Your task to perform on an android device: Do I have any events tomorrow? Image 0: 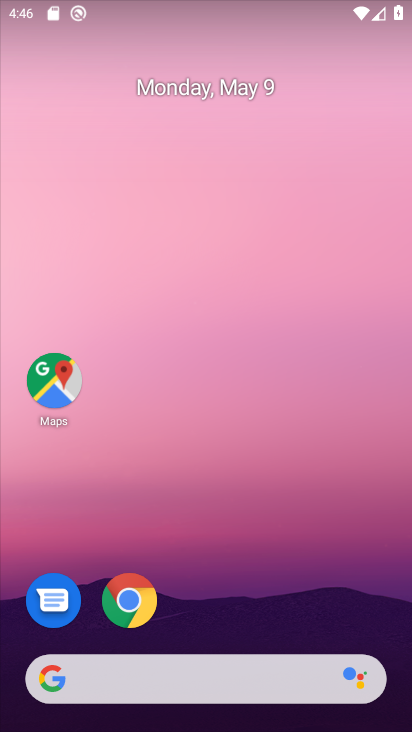
Step 0: drag from (295, 544) to (312, 69)
Your task to perform on an android device: Do I have any events tomorrow? Image 1: 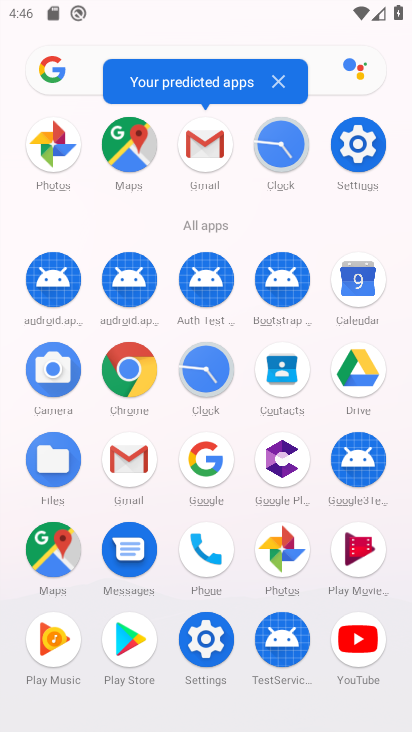
Step 1: click (127, 366)
Your task to perform on an android device: Do I have any events tomorrow? Image 2: 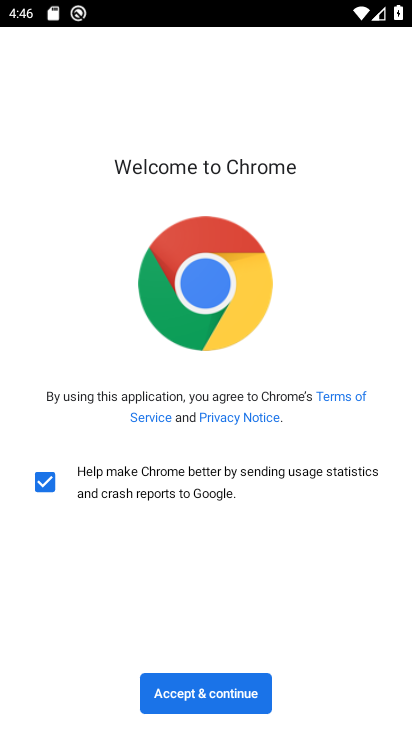
Step 2: click (207, 687)
Your task to perform on an android device: Do I have any events tomorrow? Image 3: 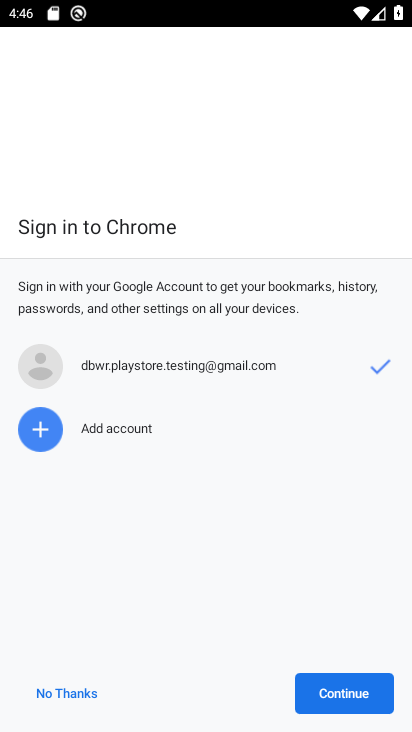
Step 3: click (84, 693)
Your task to perform on an android device: Do I have any events tomorrow? Image 4: 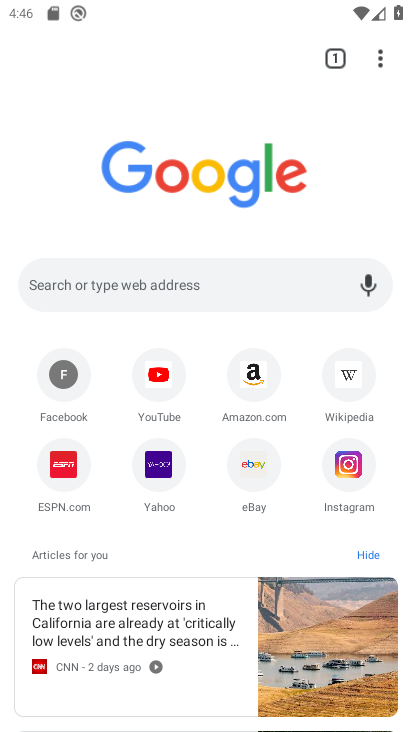
Step 4: press back button
Your task to perform on an android device: Do I have any events tomorrow? Image 5: 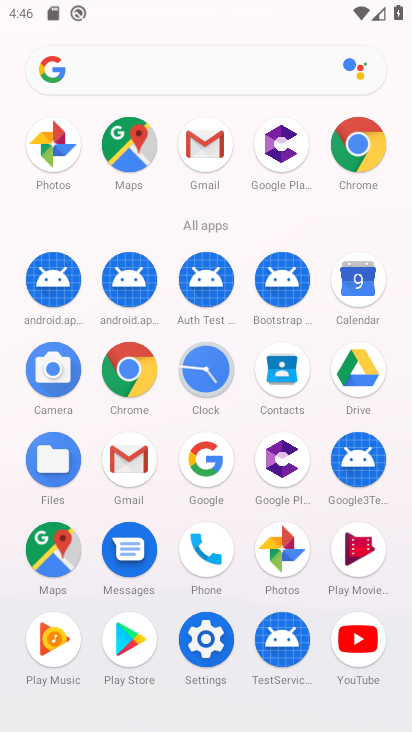
Step 5: click (363, 290)
Your task to perform on an android device: Do I have any events tomorrow? Image 6: 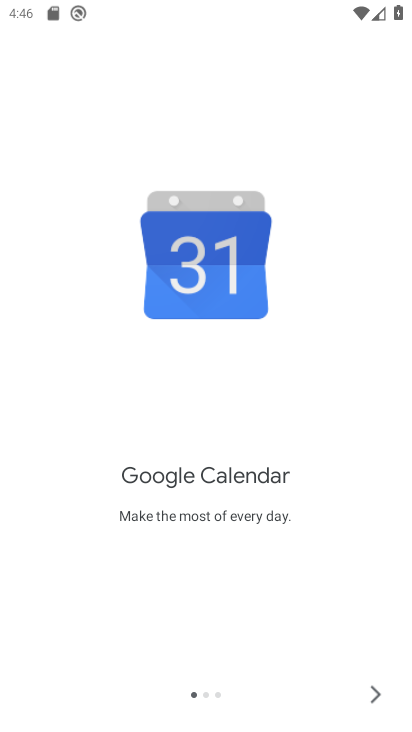
Step 6: click (383, 694)
Your task to perform on an android device: Do I have any events tomorrow? Image 7: 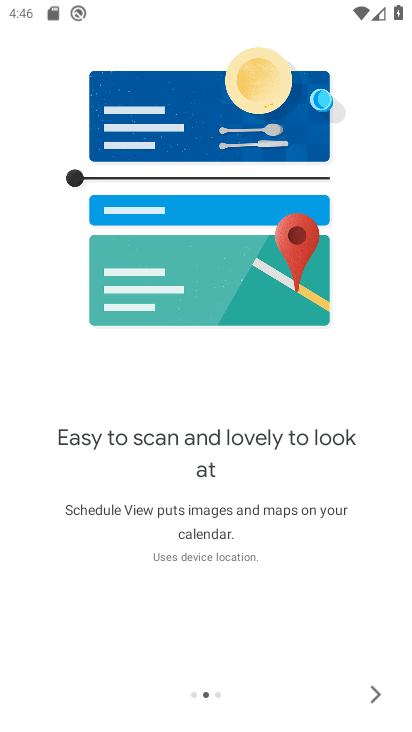
Step 7: click (383, 694)
Your task to perform on an android device: Do I have any events tomorrow? Image 8: 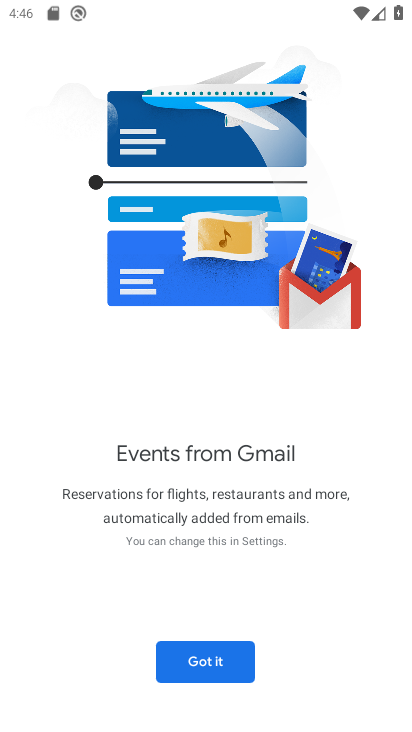
Step 8: click (211, 658)
Your task to perform on an android device: Do I have any events tomorrow? Image 9: 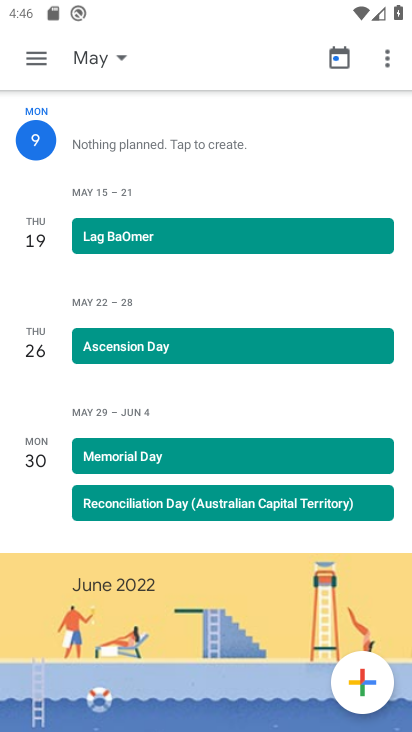
Step 9: task complete